Your task to perform on an android device: find which apps use the phone's location Image 0: 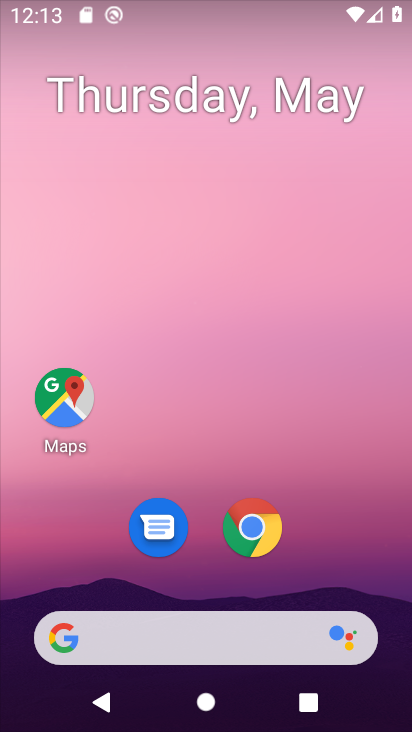
Step 0: drag from (201, 574) to (270, 25)
Your task to perform on an android device: find which apps use the phone's location Image 1: 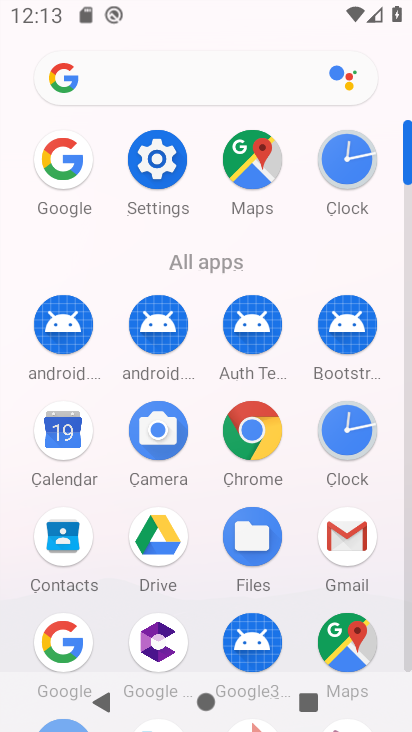
Step 1: click (170, 151)
Your task to perform on an android device: find which apps use the phone's location Image 2: 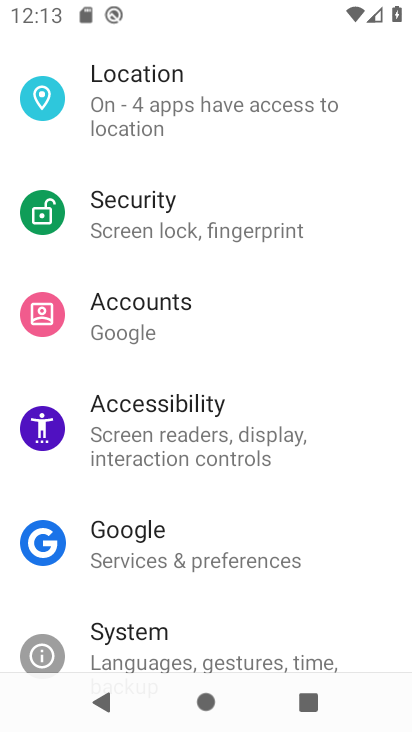
Step 2: drag from (163, 641) to (125, 700)
Your task to perform on an android device: find which apps use the phone's location Image 3: 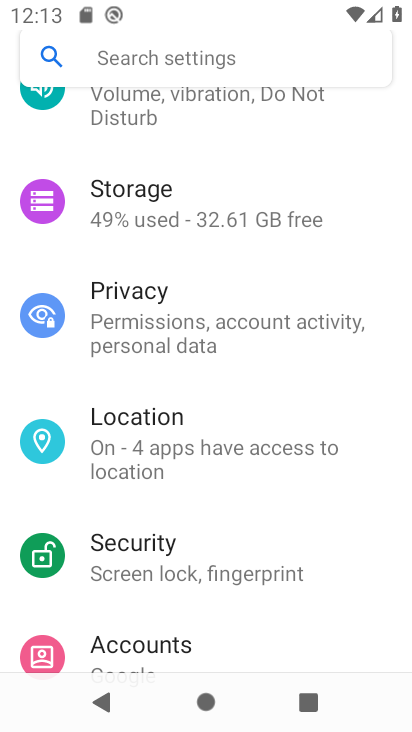
Step 3: click (126, 483)
Your task to perform on an android device: find which apps use the phone's location Image 4: 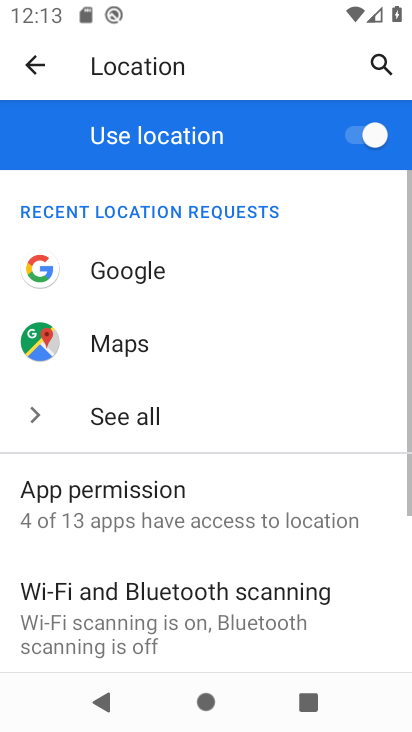
Step 4: click (97, 500)
Your task to perform on an android device: find which apps use the phone's location Image 5: 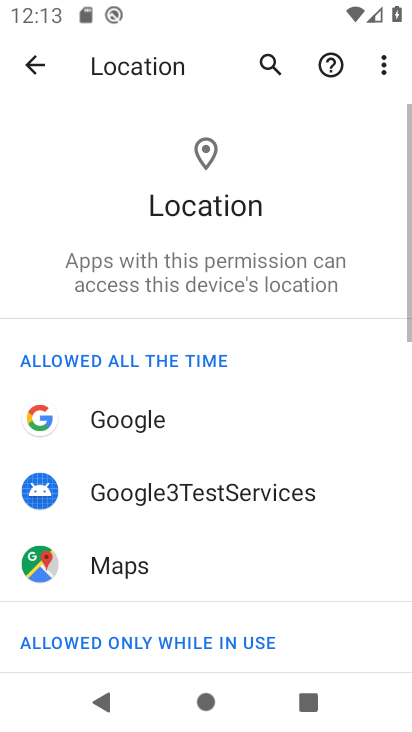
Step 5: task complete